Your task to perform on an android device: What is the news today? Image 0: 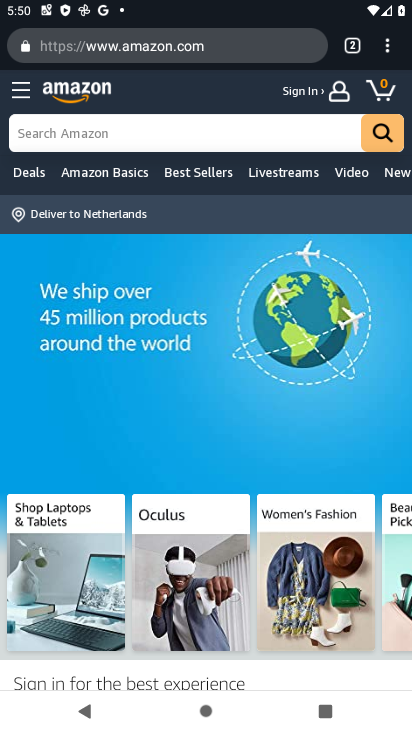
Step 0: press home button
Your task to perform on an android device: What is the news today? Image 1: 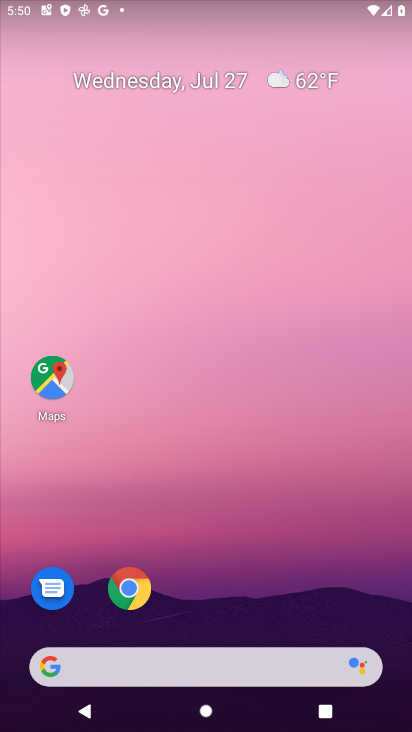
Step 1: click (166, 676)
Your task to perform on an android device: What is the news today? Image 2: 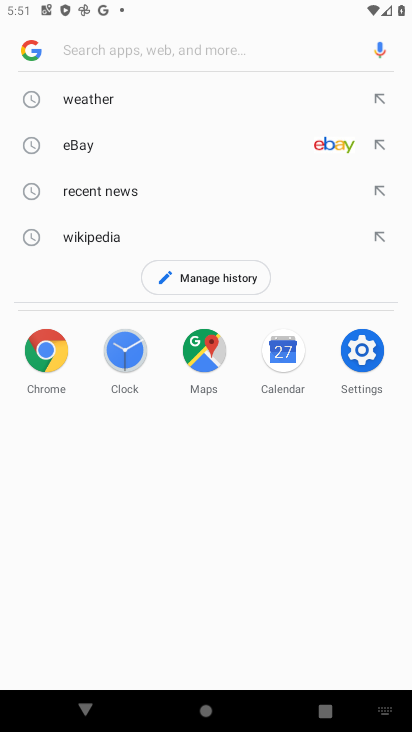
Step 2: type "news today"
Your task to perform on an android device: What is the news today? Image 3: 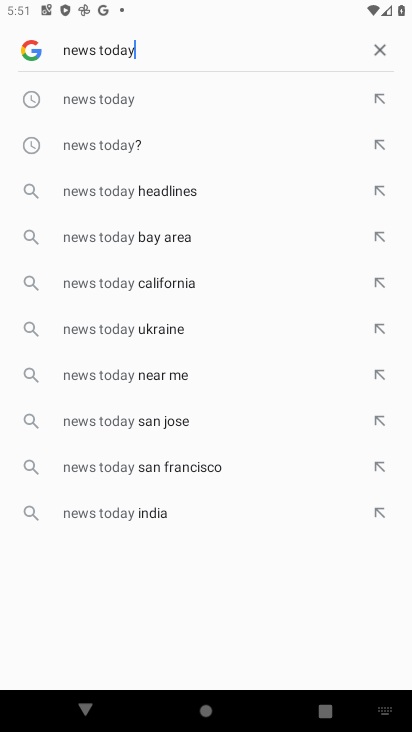
Step 3: click (133, 103)
Your task to perform on an android device: What is the news today? Image 4: 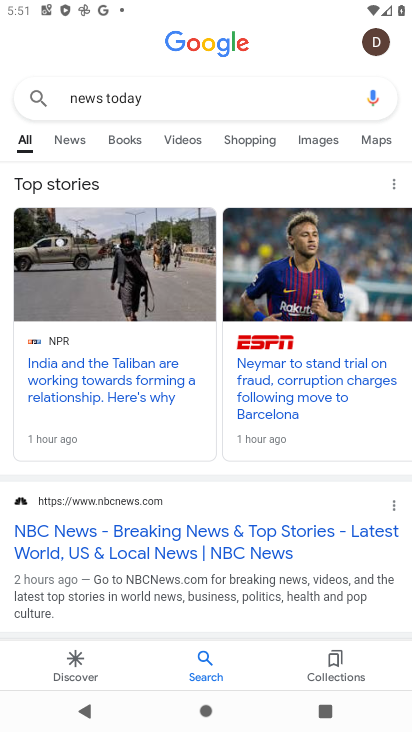
Step 4: task complete